Your task to perform on an android device: turn off notifications in google photos Image 0: 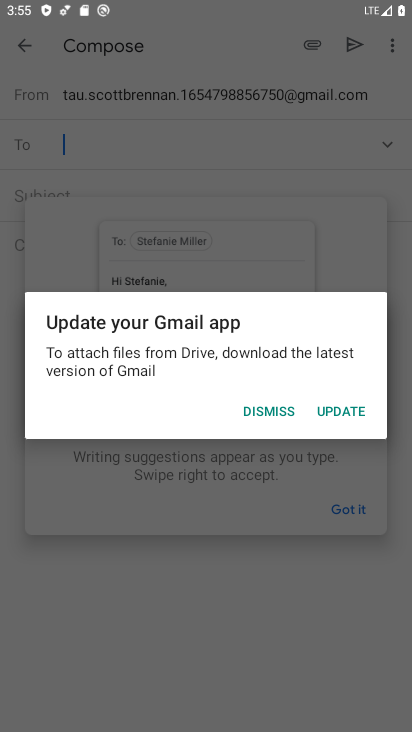
Step 0: press home button
Your task to perform on an android device: turn off notifications in google photos Image 1: 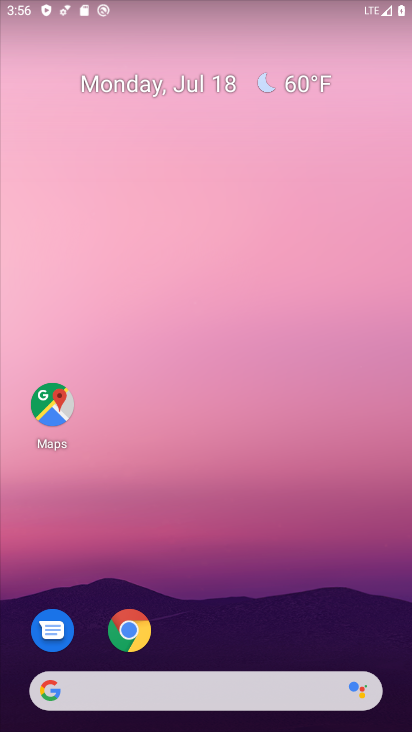
Step 1: drag from (279, 598) to (217, 75)
Your task to perform on an android device: turn off notifications in google photos Image 2: 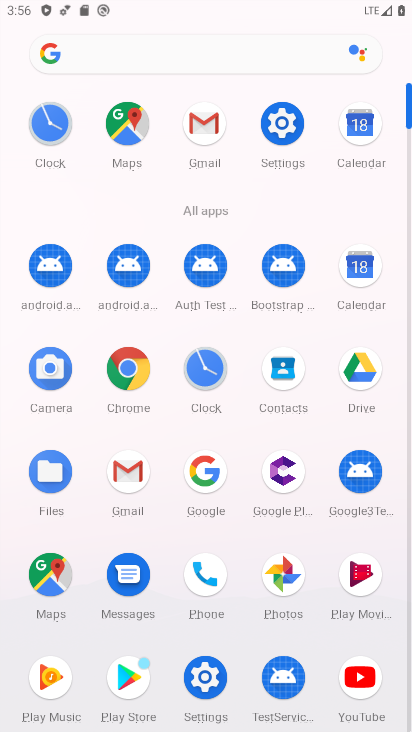
Step 2: click (273, 569)
Your task to perform on an android device: turn off notifications in google photos Image 3: 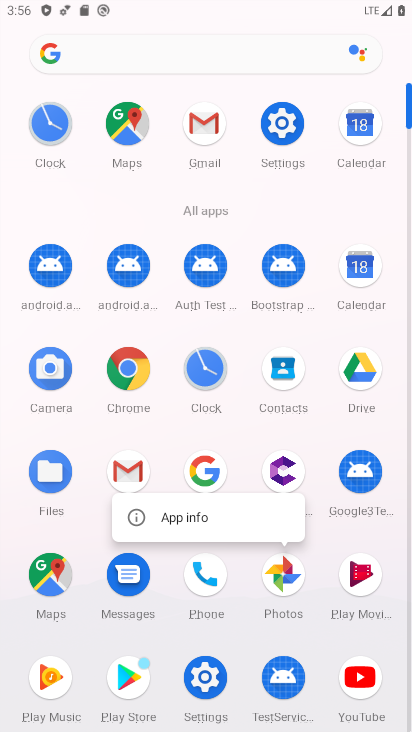
Step 3: click (232, 524)
Your task to perform on an android device: turn off notifications in google photos Image 4: 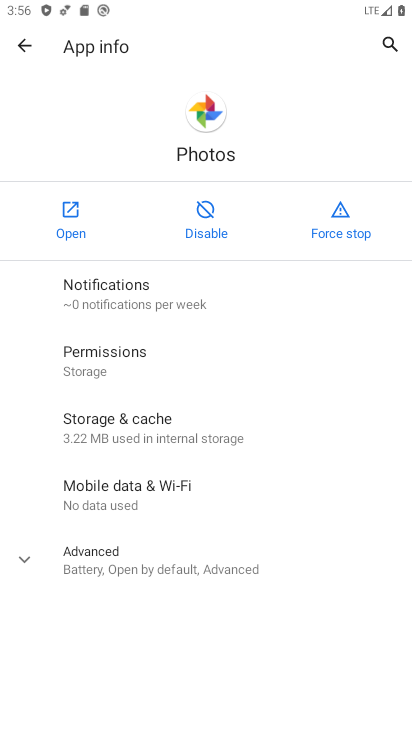
Step 4: click (160, 286)
Your task to perform on an android device: turn off notifications in google photos Image 5: 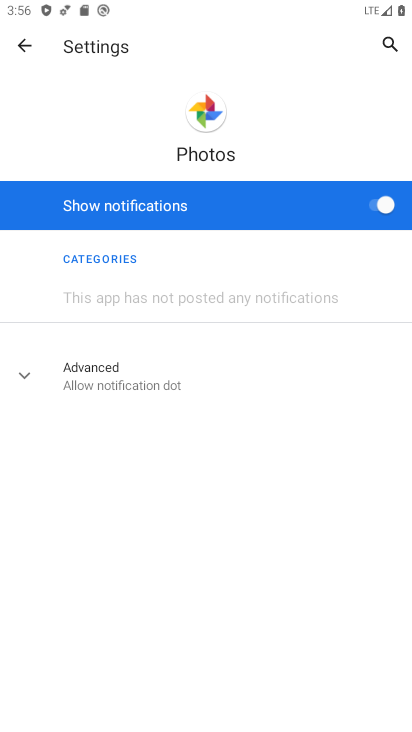
Step 5: click (379, 213)
Your task to perform on an android device: turn off notifications in google photos Image 6: 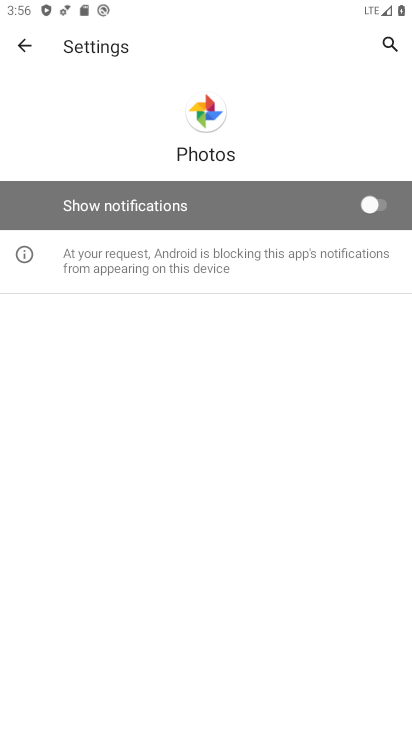
Step 6: task complete